Your task to perform on an android device: see tabs open on other devices in the chrome app Image 0: 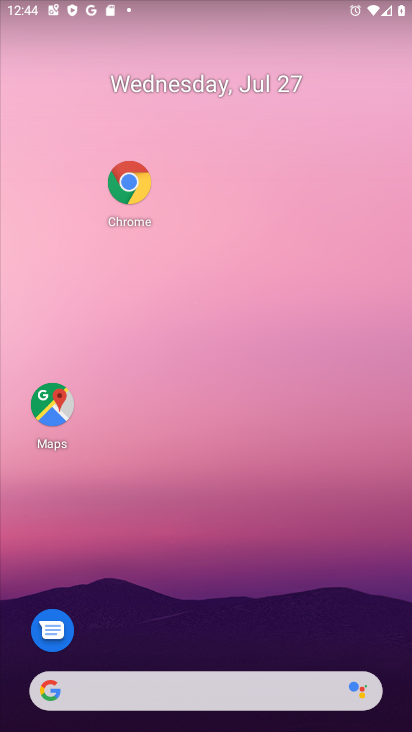
Step 0: click (126, 182)
Your task to perform on an android device: see tabs open on other devices in the chrome app Image 1: 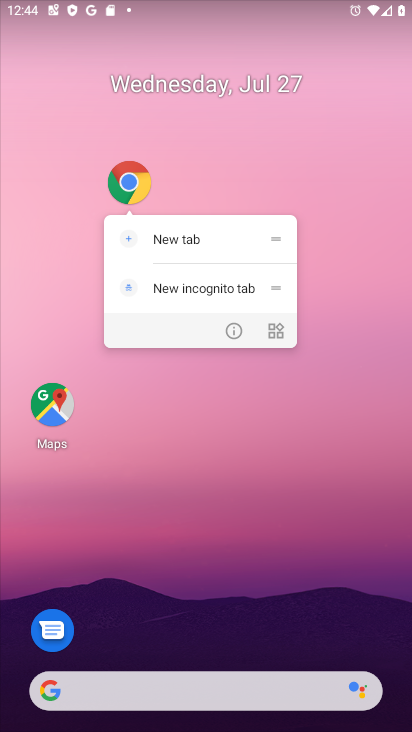
Step 1: click (126, 182)
Your task to perform on an android device: see tabs open on other devices in the chrome app Image 2: 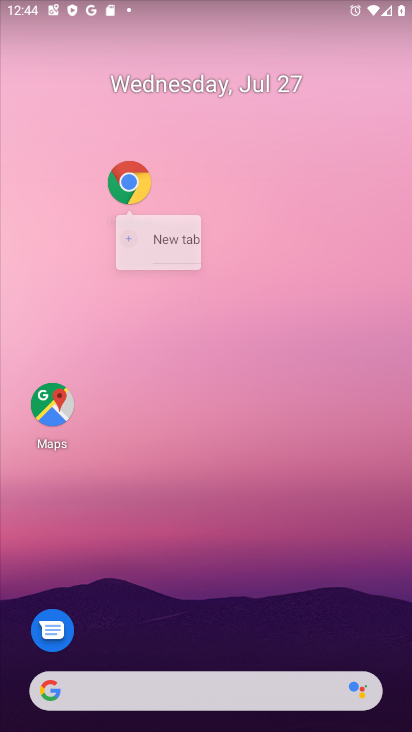
Step 2: click (126, 182)
Your task to perform on an android device: see tabs open on other devices in the chrome app Image 3: 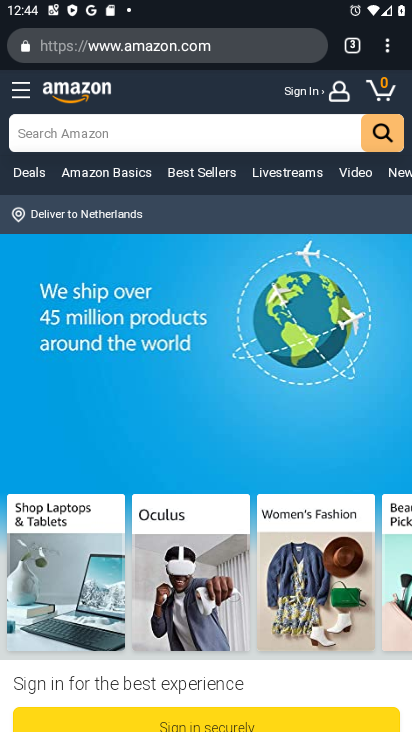
Step 3: click (385, 46)
Your task to perform on an android device: see tabs open on other devices in the chrome app Image 4: 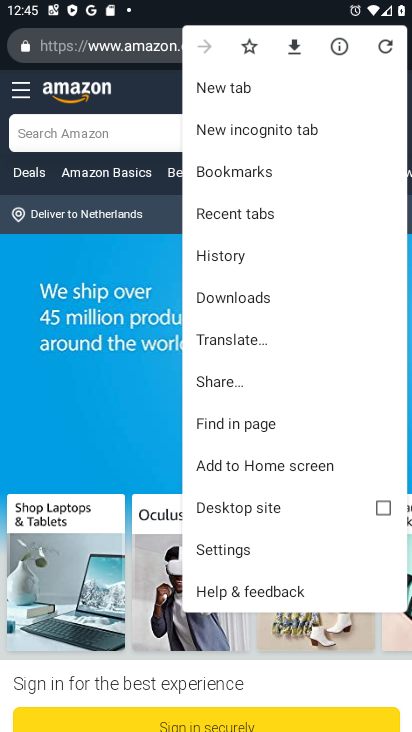
Step 4: click (270, 214)
Your task to perform on an android device: see tabs open on other devices in the chrome app Image 5: 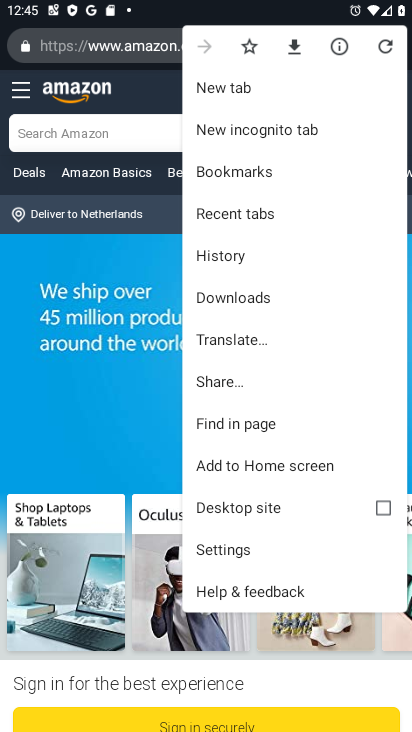
Step 5: click (270, 214)
Your task to perform on an android device: see tabs open on other devices in the chrome app Image 6: 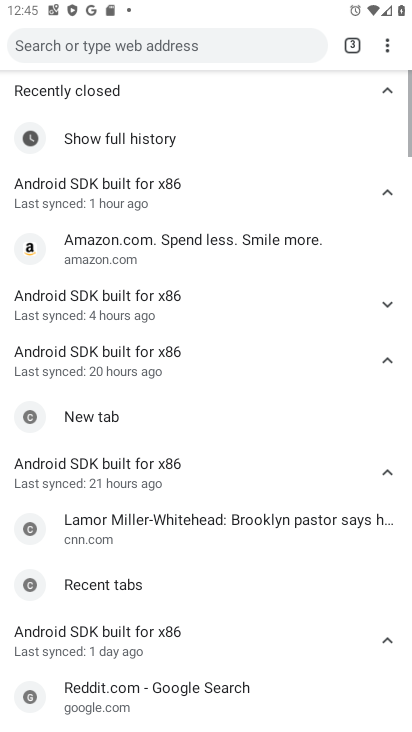
Step 6: task complete